Your task to perform on an android device: change the clock display to show seconds Image 0: 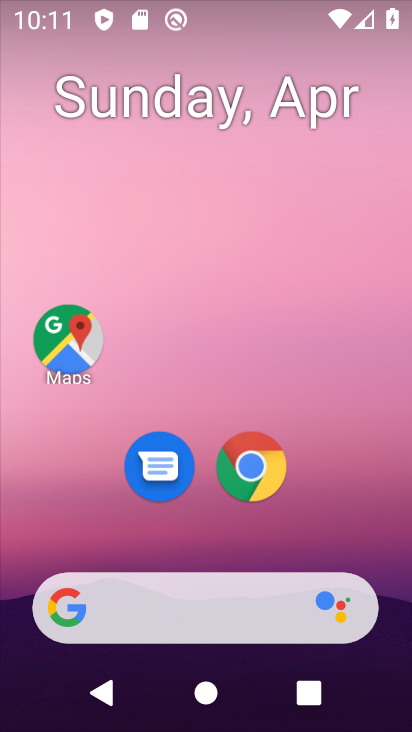
Step 0: drag from (365, 490) to (354, 121)
Your task to perform on an android device: change the clock display to show seconds Image 1: 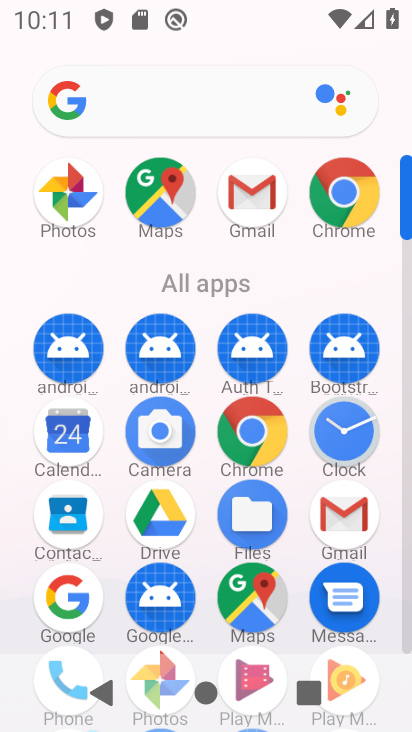
Step 1: click (327, 430)
Your task to perform on an android device: change the clock display to show seconds Image 2: 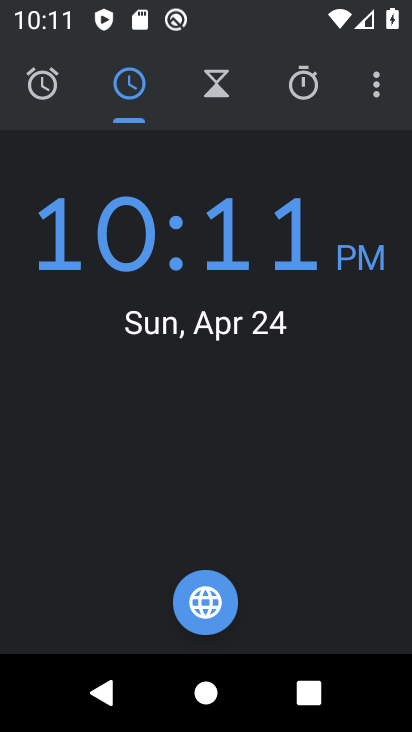
Step 2: click (381, 90)
Your task to perform on an android device: change the clock display to show seconds Image 3: 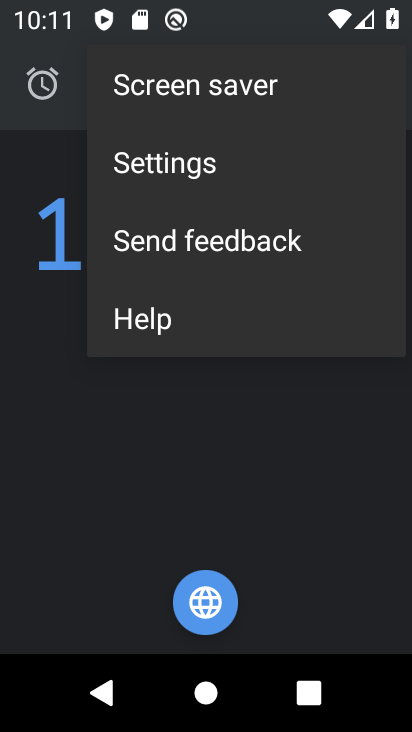
Step 3: click (182, 169)
Your task to perform on an android device: change the clock display to show seconds Image 4: 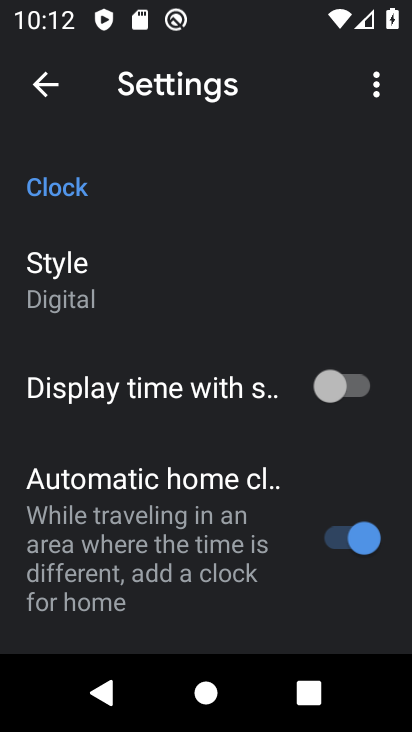
Step 4: click (334, 383)
Your task to perform on an android device: change the clock display to show seconds Image 5: 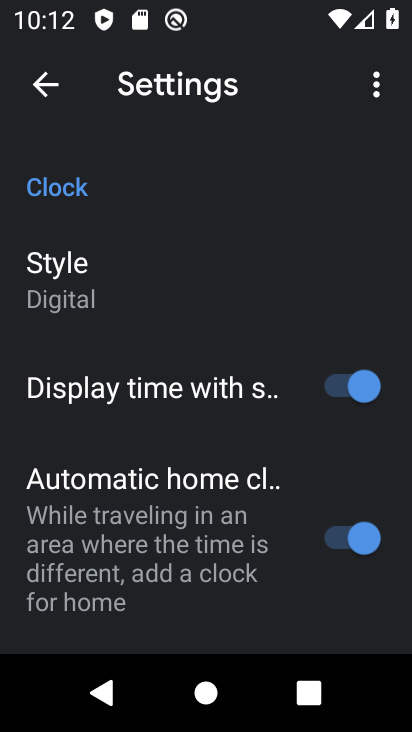
Step 5: task complete